Your task to perform on an android device: Open display settings Image 0: 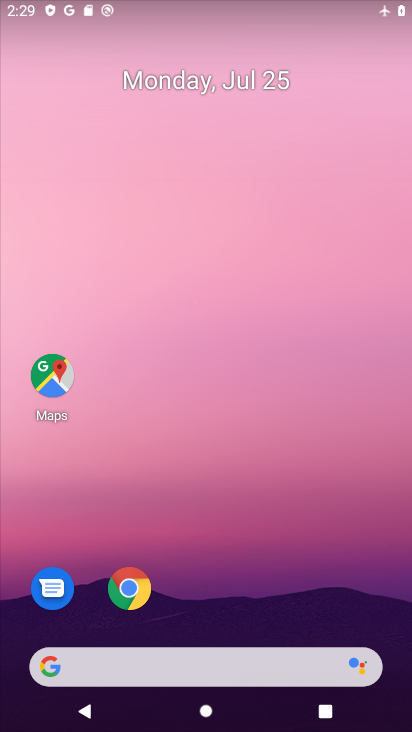
Step 0: press home button
Your task to perform on an android device: Open display settings Image 1: 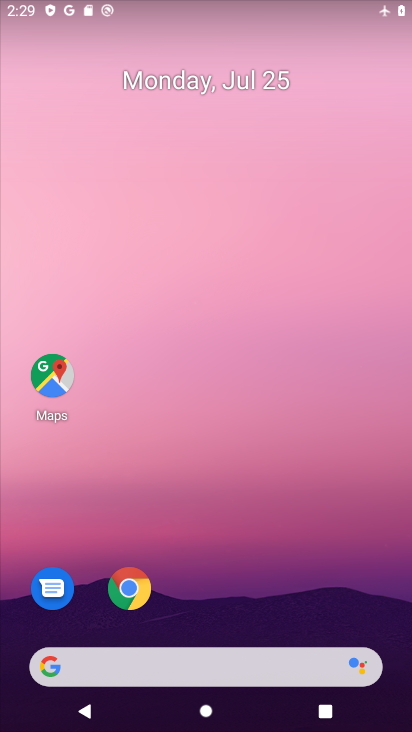
Step 1: drag from (210, 621) to (276, 2)
Your task to perform on an android device: Open display settings Image 2: 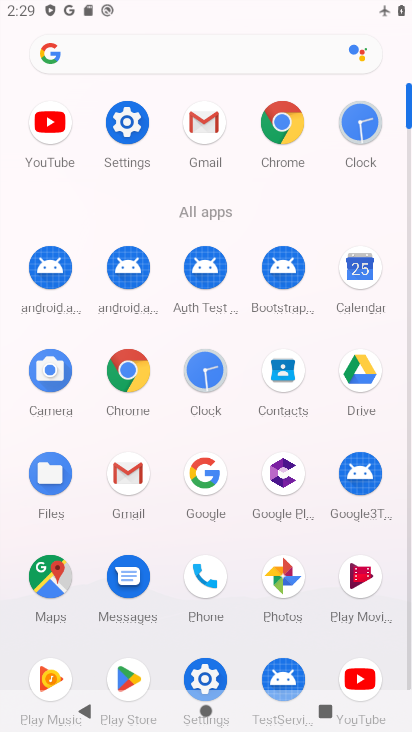
Step 2: click (125, 118)
Your task to perform on an android device: Open display settings Image 3: 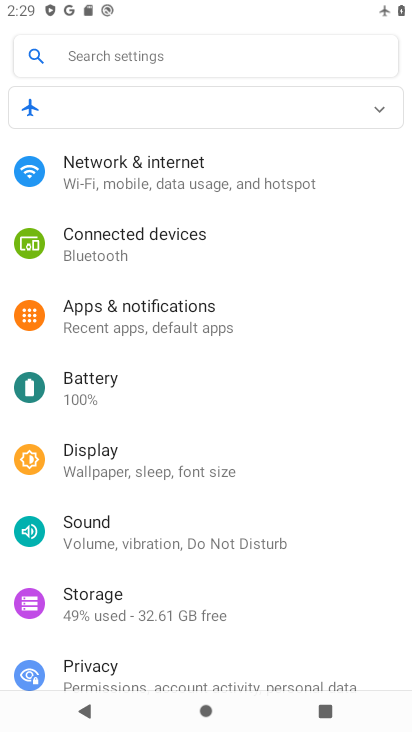
Step 3: click (126, 448)
Your task to perform on an android device: Open display settings Image 4: 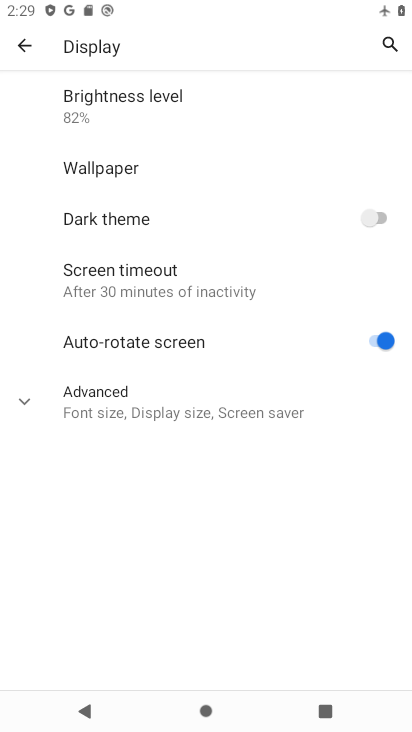
Step 4: click (28, 394)
Your task to perform on an android device: Open display settings Image 5: 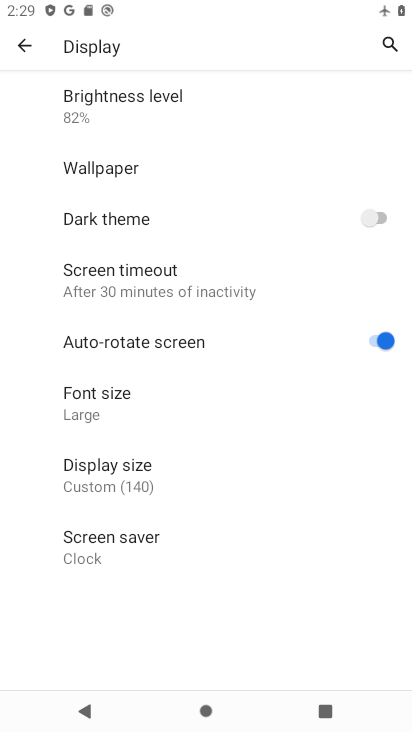
Step 5: task complete